Your task to perform on an android device: toggle notifications settings in the gmail app Image 0: 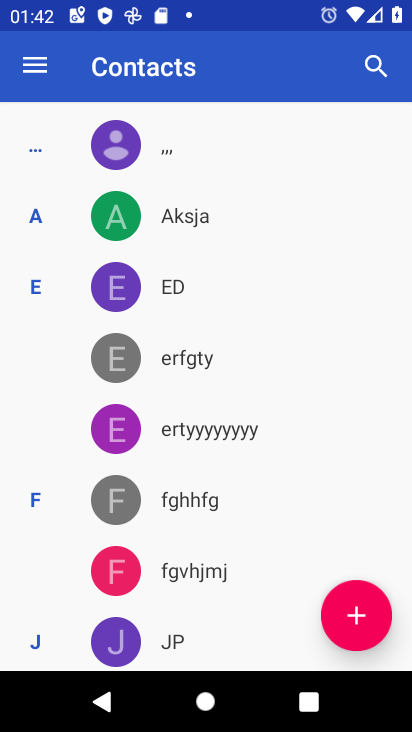
Step 0: press home button
Your task to perform on an android device: toggle notifications settings in the gmail app Image 1: 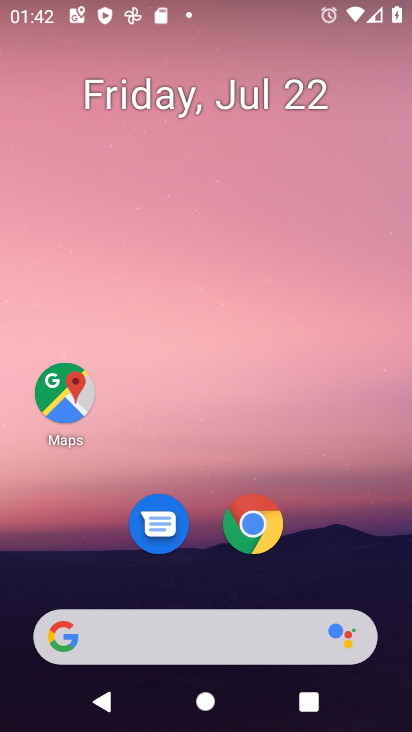
Step 1: drag from (204, 625) to (304, 67)
Your task to perform on an android device: toggle notifications settings in the gmail app Image 2: 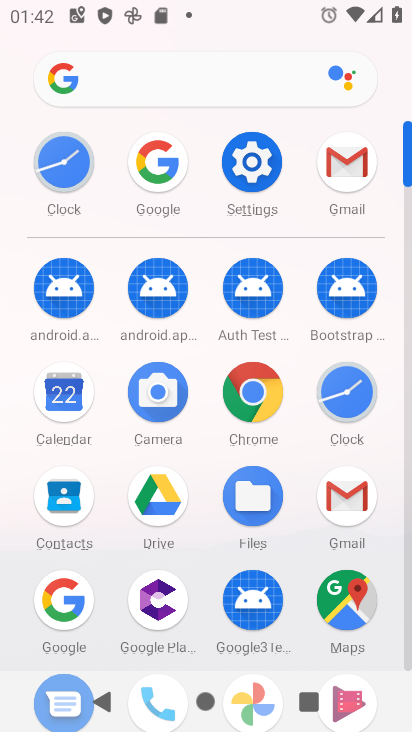
Step 2: click (349, 181)
Your task to perform on an android device: toggle notifications settings in the gmail app Image 3: 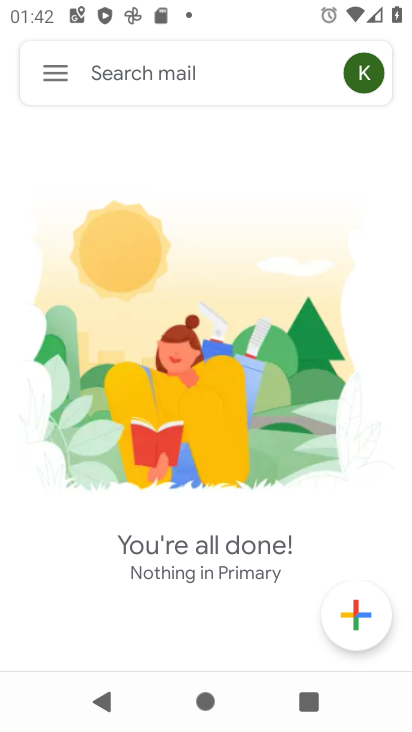
Step 3: click (51, 76)
Your task to perform on an android device: toggle notifications settings in the gmail app Image 4: 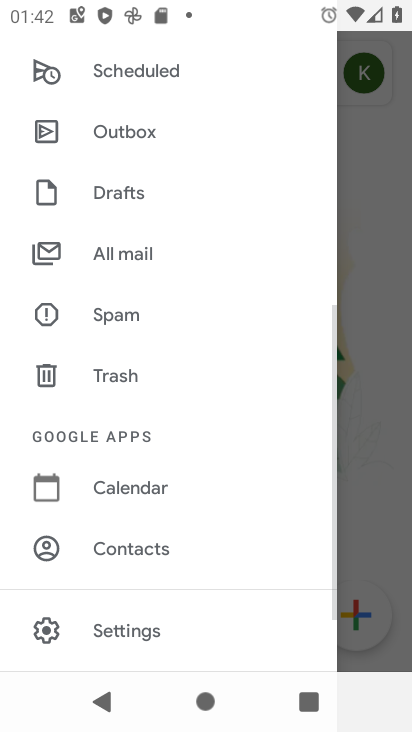
Step 4: click (116, 633)
Your task to perform on an android device: toggle notifications settings in the gmail app Image 5: 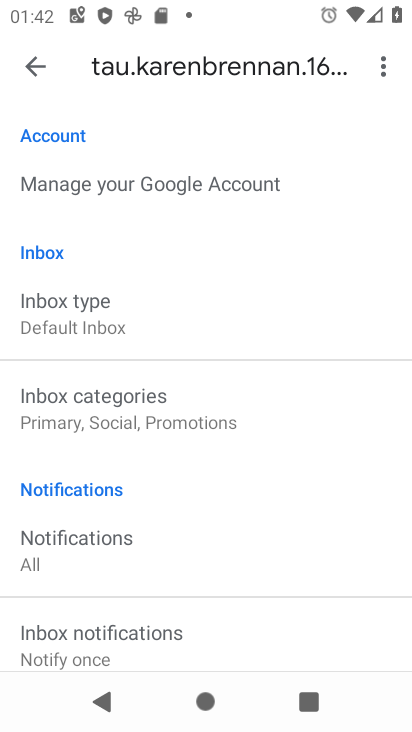
Step 5: click (98, 544)
Your task to perform on an android device: toggle notifications settings in the gmail app Image 6: 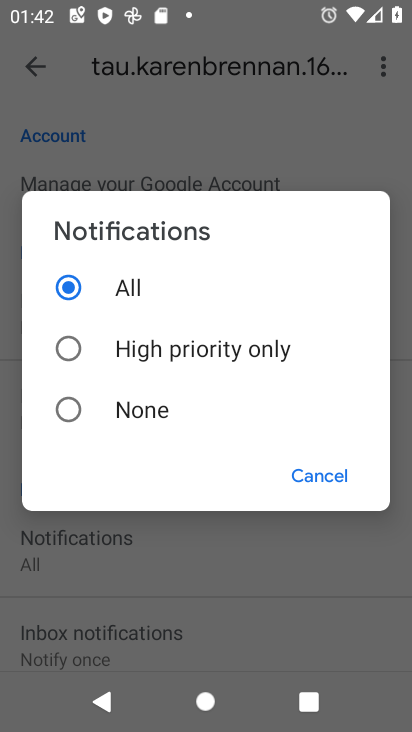
Step 6: click (65, 406)
Your task to perform on an android device: toggle notifications settings in the gmail app Image 7: 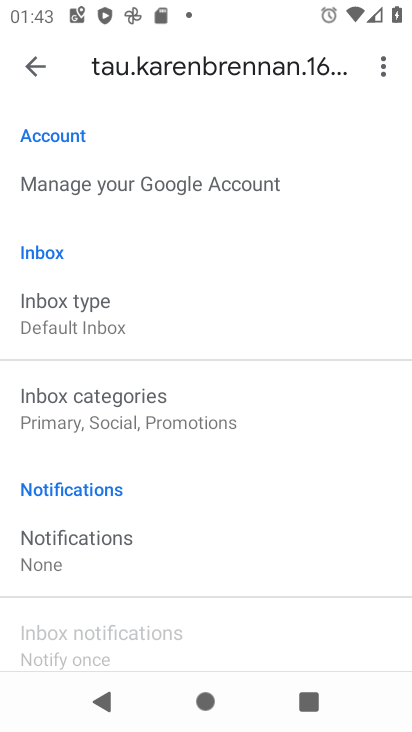
Step 7: task complete